Your task to perform on an android device: Add "bose quietcomfort 35" to the cart on target.com Image 0: 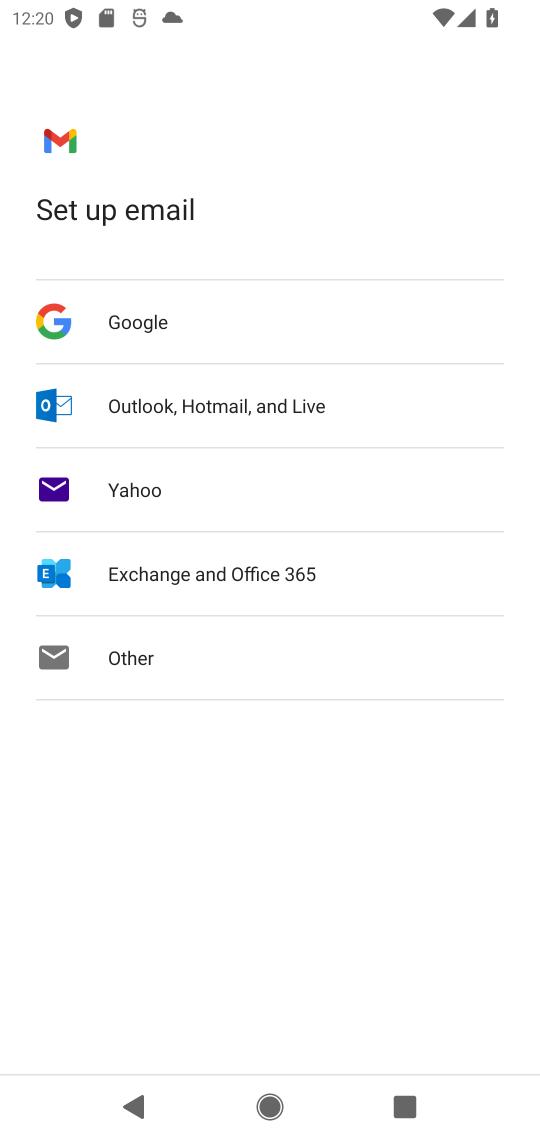
Step 0: press home button
Your task to perform on an android device: Add "bose quietcomfort 35" to the cart on target.com Image 1: 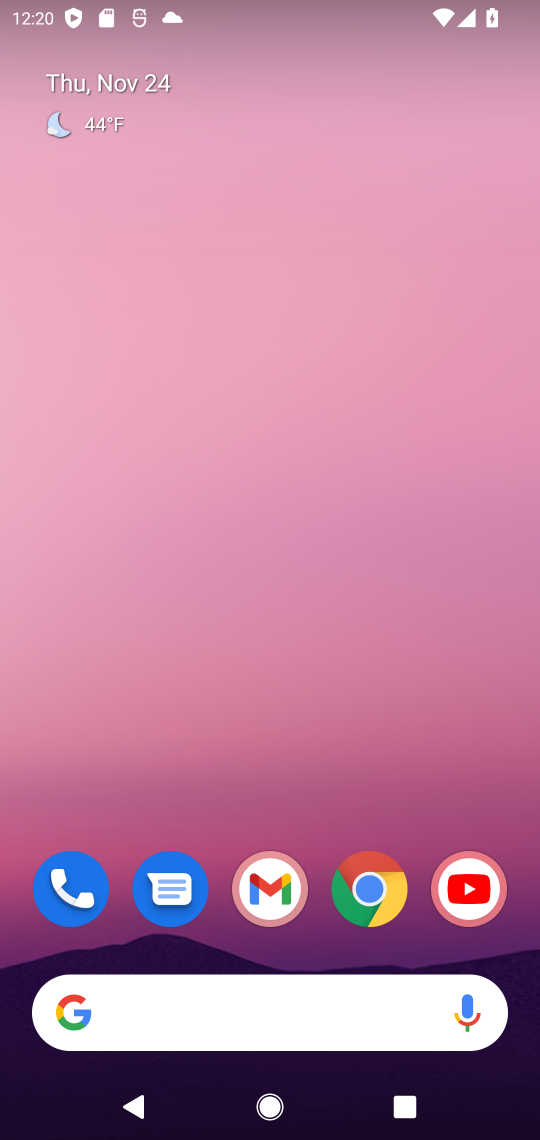
Step 1: click (370, 898)
Your task to perform on an android device: Add "bose quietcomfort 35" to the cart on target.com Image 2: 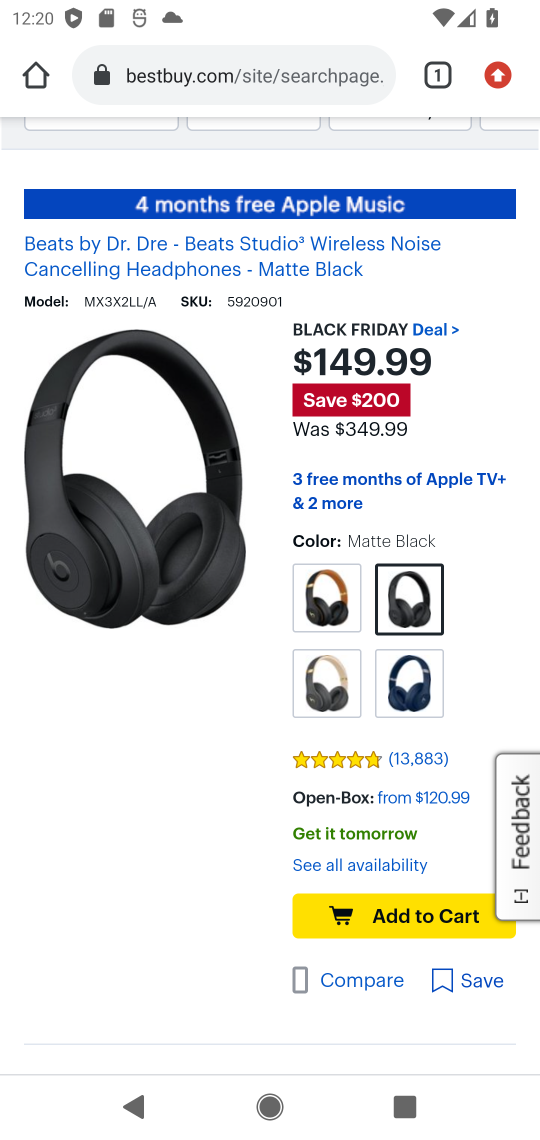
Step 2: click (203, 70)
Your task to perform on an android device: Add "bose quietcomfort 35" to the cart on target.com Image 3: 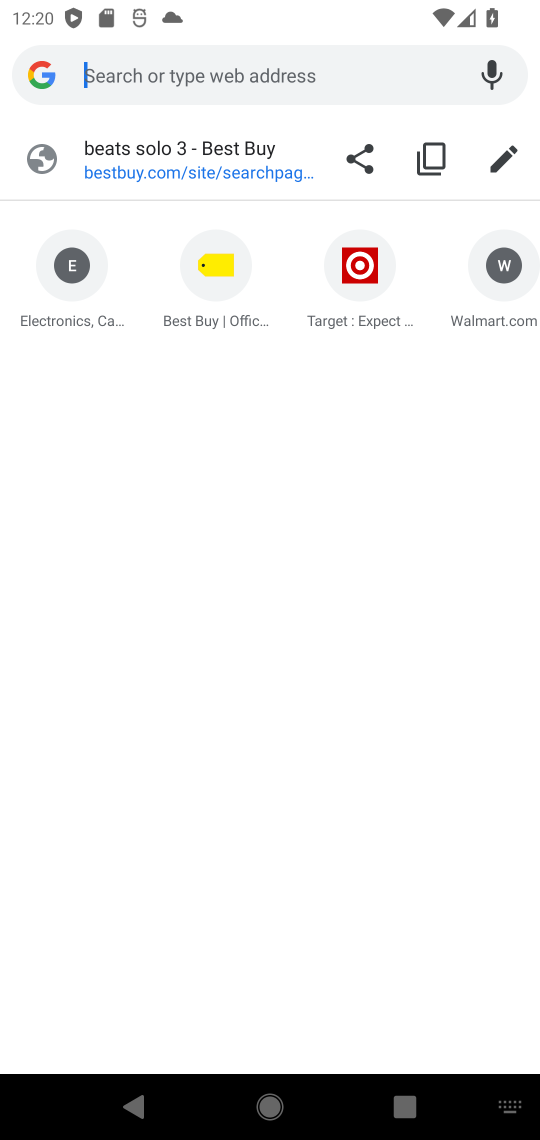
Step 3: click (341, 289)
Your task to perform on an android device: Add "bose quietcomfort 35" to the cart on target.com Image 4: 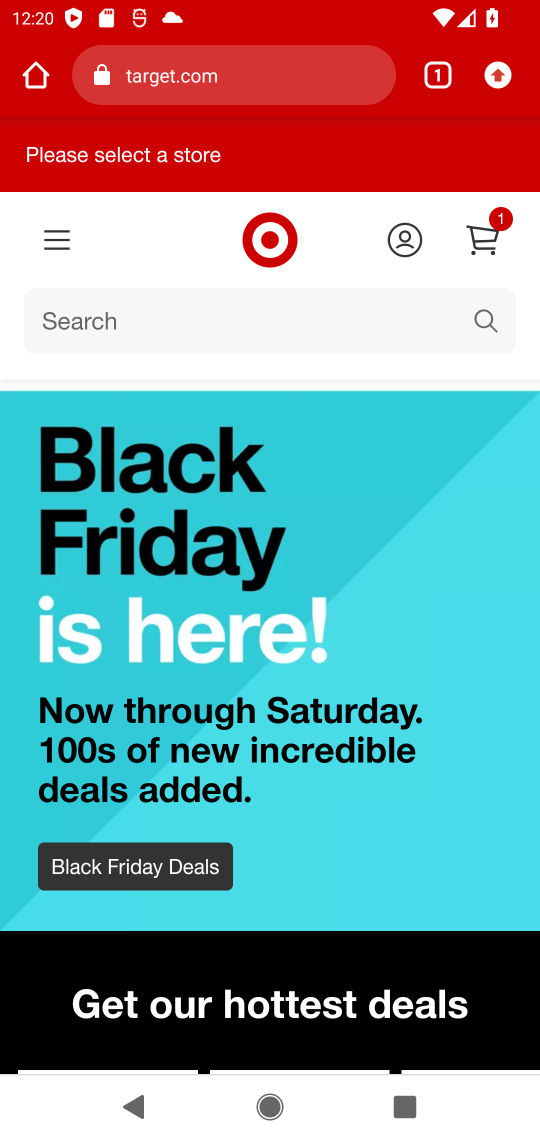
Step 4: click (478, 320)
Your task to perform on an android device: Add "bose quietcomfort 35" to the cart on target.com Image 5: 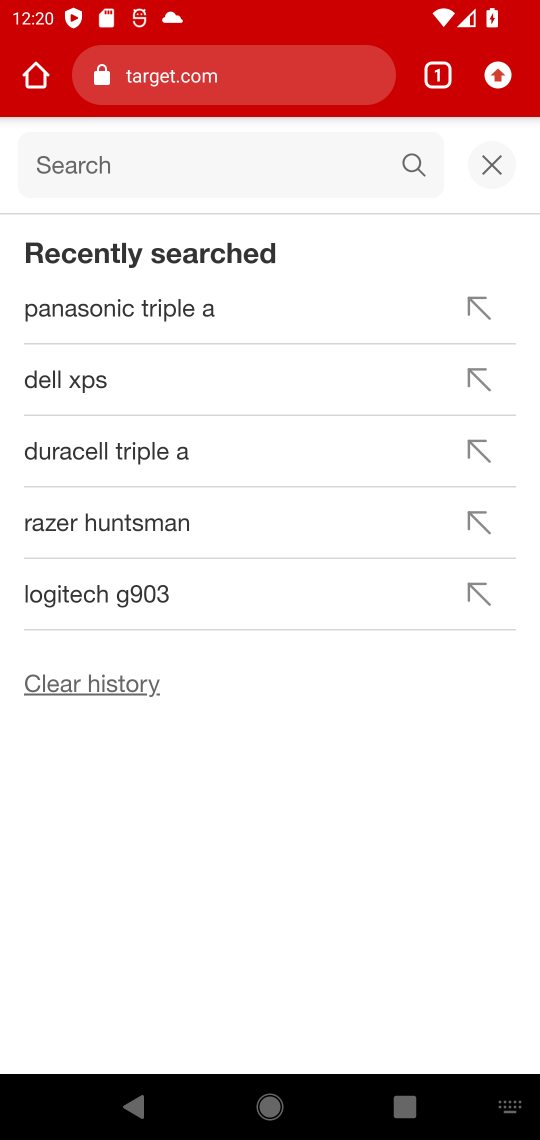
Step 5: type "bose quietcomfort 35"
Your task to perform on an android device: Add "bose quietcomfort 35" to the cart on target.com Image 6: 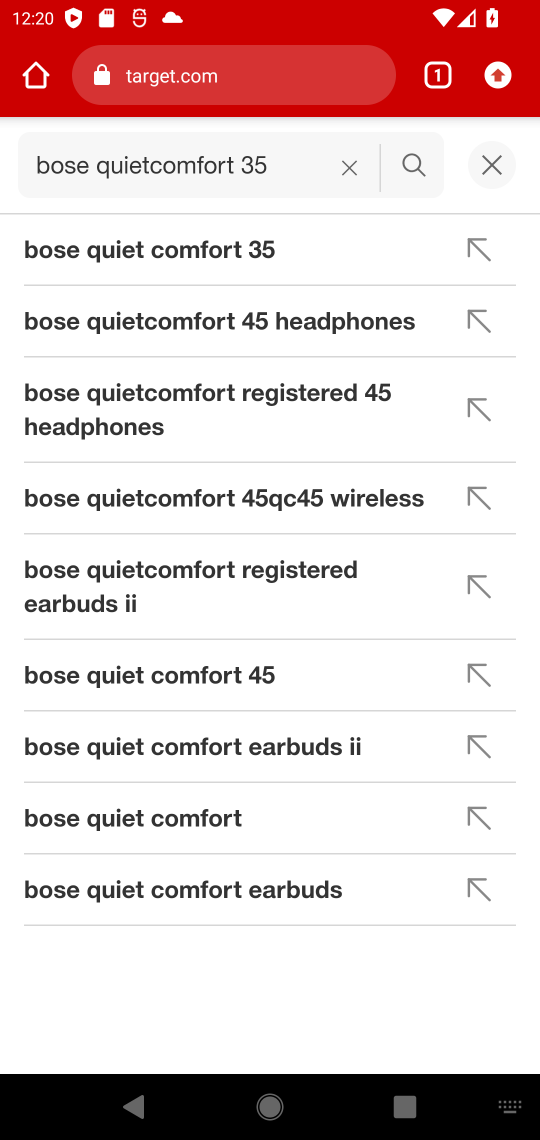
Step 6: click (124, 256)
Your task to perform on an android device: Add "bose quietcomfort 35" to the cart on target.com Image 7: 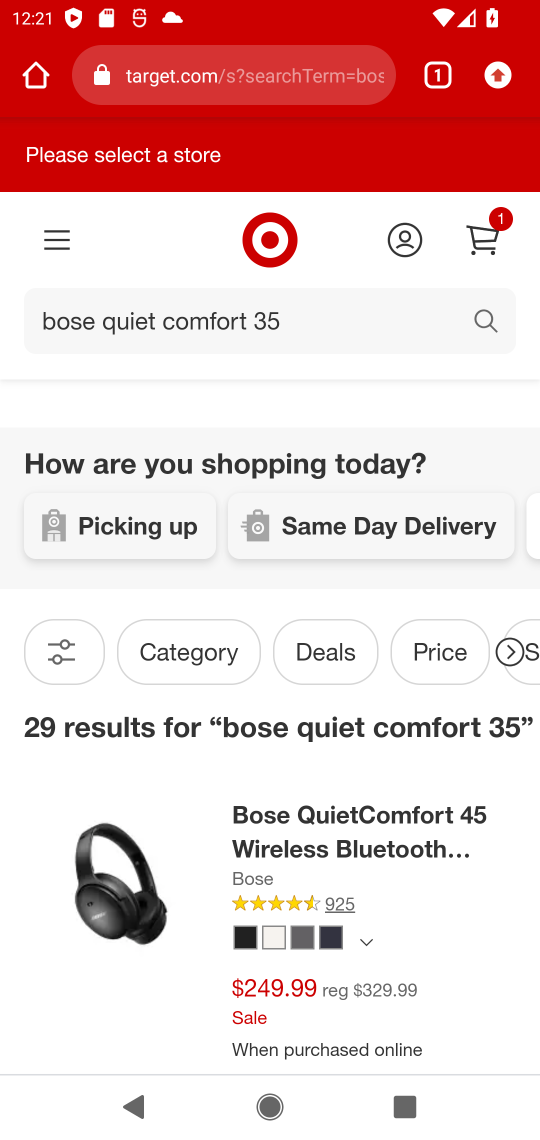
Step 7: task complete